Your task to perform on an android device: Go to accessibility settings Image 0: 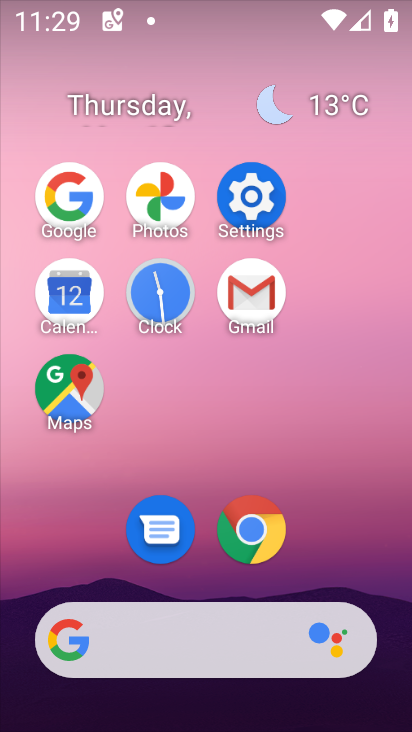
Step 0: click (240, 199)
Your task to perform on an android device: Go to accessibility settings Image 1: 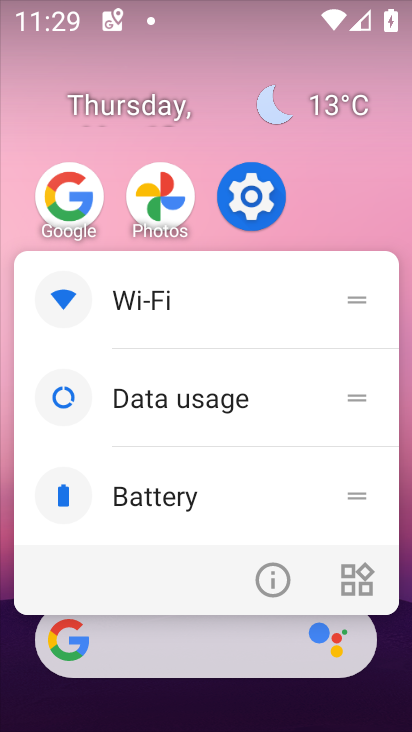
Step 1: click (246, 184)
Your task to perform on an android device: Go to accessibility settings Image 2: 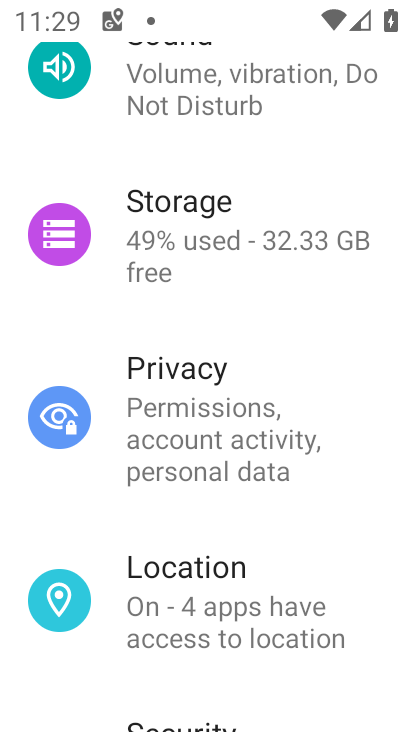
Step 2: drag from (273, 625) to (309, 208)
Your task to perform on an android device: Go to accessibility settings Image 3: 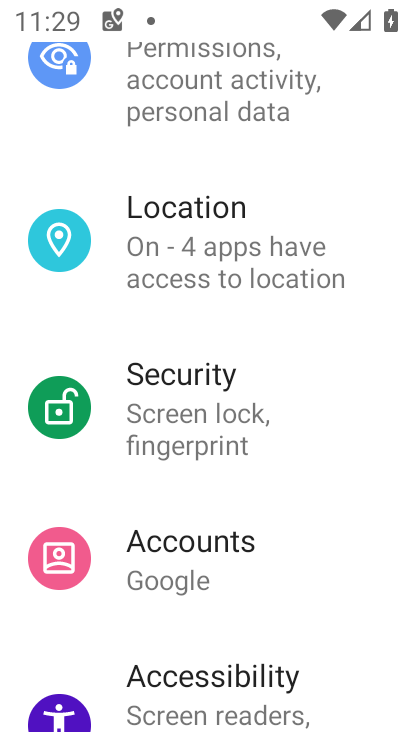
Step 3: drag from (298, 577) to (289, 228)
Your task to perform on an android device: Go to accessibility settings Image 4: 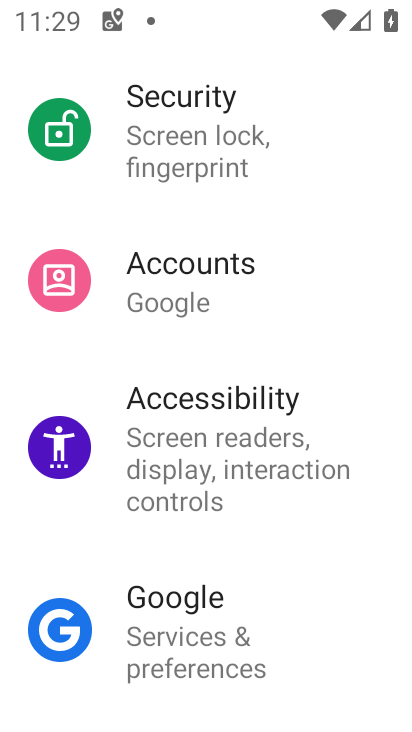
Step 4: click (259, 447)
Your task to perform on an android device: Go to accessibility settings Image 5: 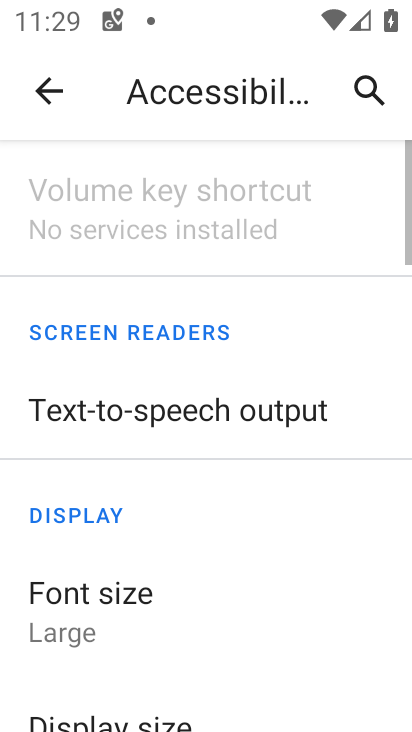
Step 5: task complete